Your task to perform on an android device: Open Youtube and go to "Your channel" Image 0: 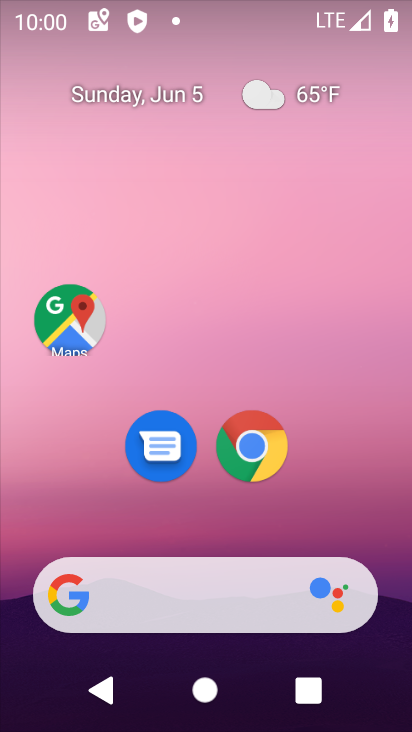
Step 0: drag from (198, 537) to (170, 190)
Your task to perform on an android device: Open Youtube and go to "Your channel" Image 1: 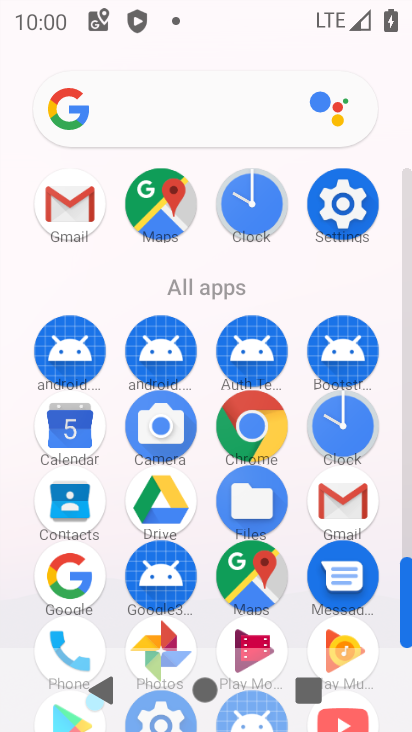
Step 1: drag from (271, 623) to (276, 359)
Your task to perform on an android device: Open Youtube and go to "Your channel" Image 2: 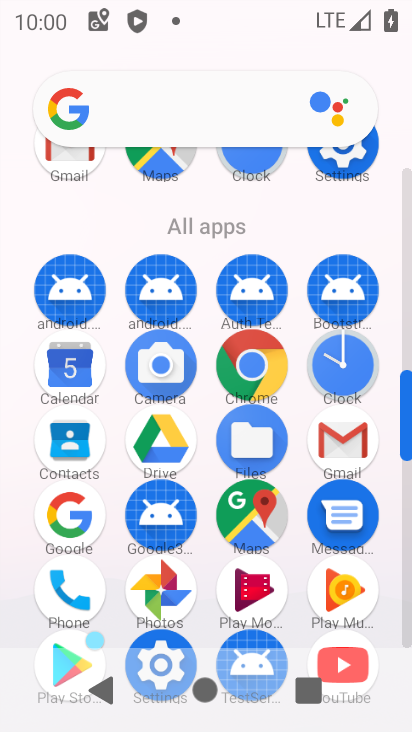
Step 2: drag from (289, 621) to (311, 400)
Your task to perform on an android device: Open Youtube and go to "Your channel" Image 3: 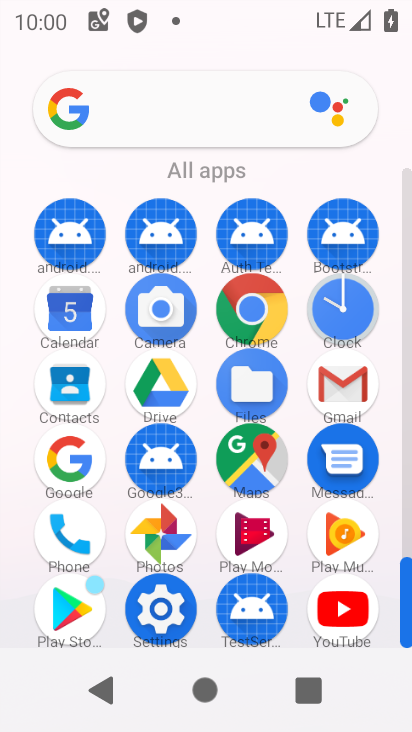
Step 3: click (346, 614)
Your task to perform on an android device: Open Youtube and go to "Your channel" Image 4: 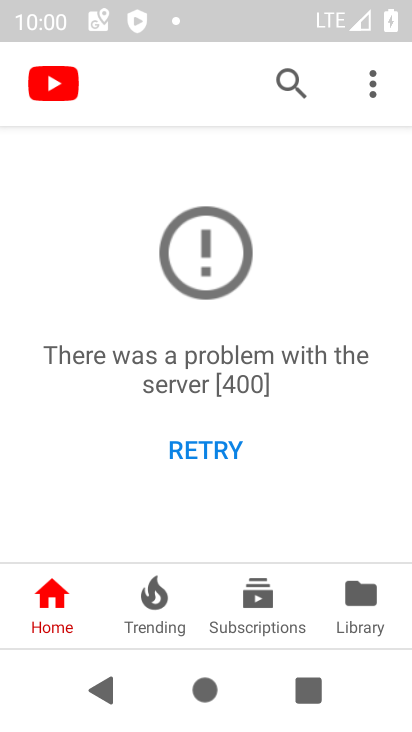
Step 4: click (354, 614)
Your task to perform on an android device: Open Youtube and go to "Your channel" Image 5: 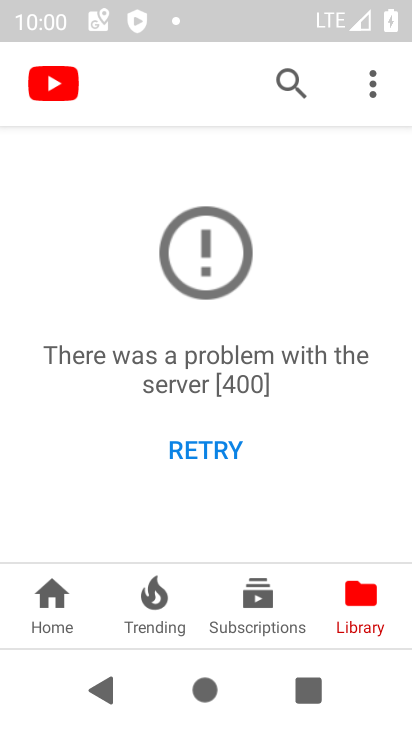
Step 5: task complete